Your task to perform on an android device: Open Reddit.com Image 0: 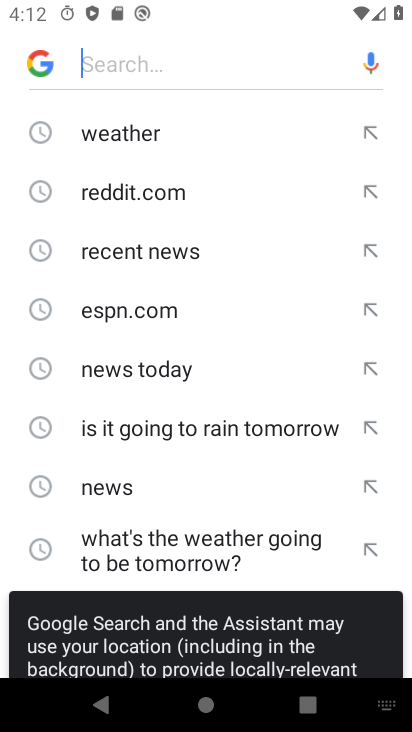
Step 0: press home button
Your task to perform on an android device: Open Reddit.com Image 1: 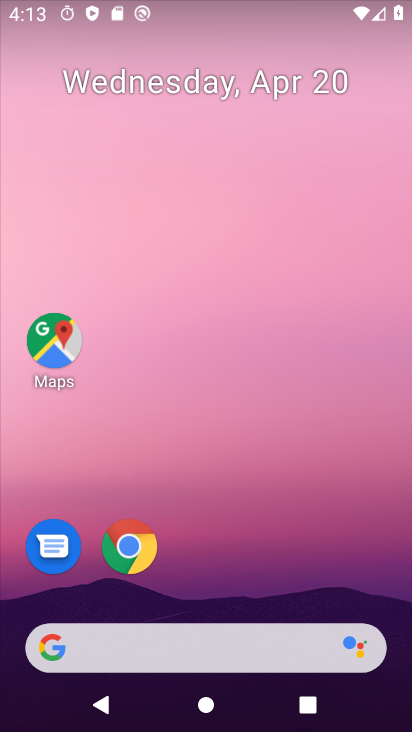
Step 1: click (112, 645)
Your task to perform on an android device: Open Reddit.com Image 2: 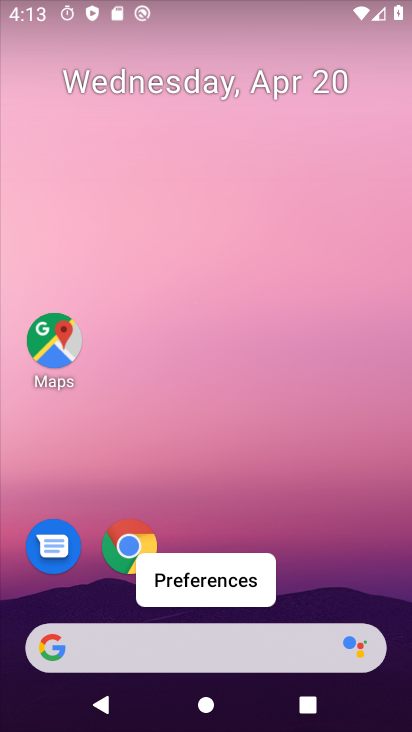
Step 2: click (112, 645)
Your task to perform on an android device: Open Reddit.com Image 3: 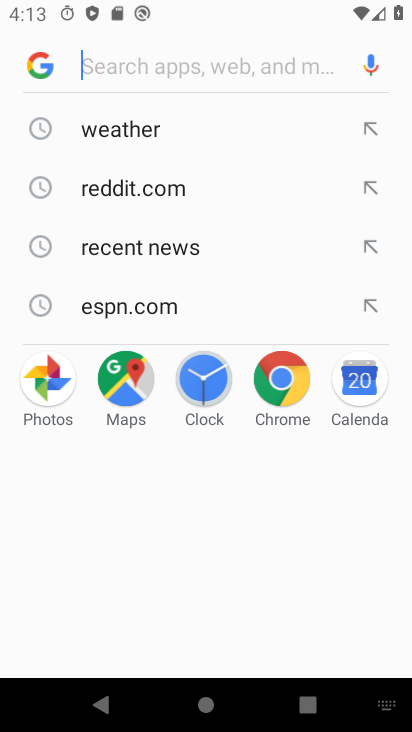
Step 3: click (158, 176)
Your task to perform on an android device: Open Reddit.com Image 4: 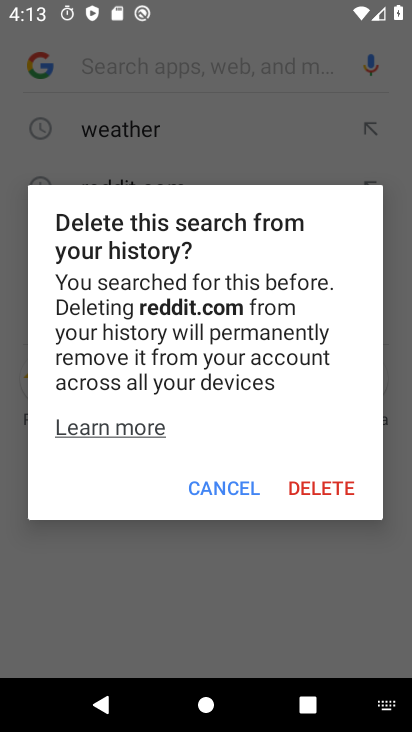
Step 4: click (229, 488)
Your task to perform on an android device: Open Reddit.com Image 5: 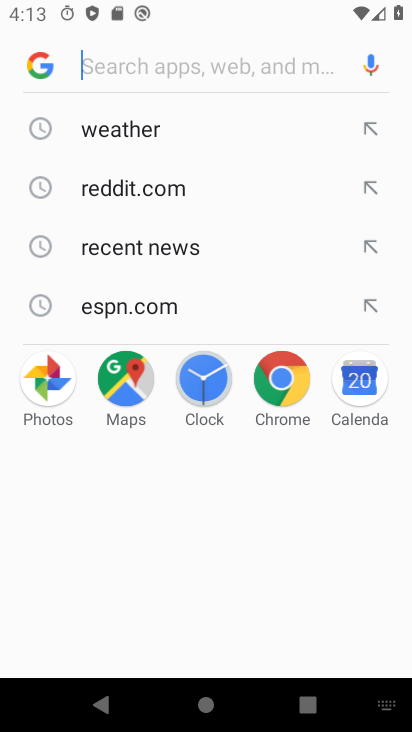
Step 5: click (167, 193)
Your task to perform on an android device: Open Reddit.com Image 6: 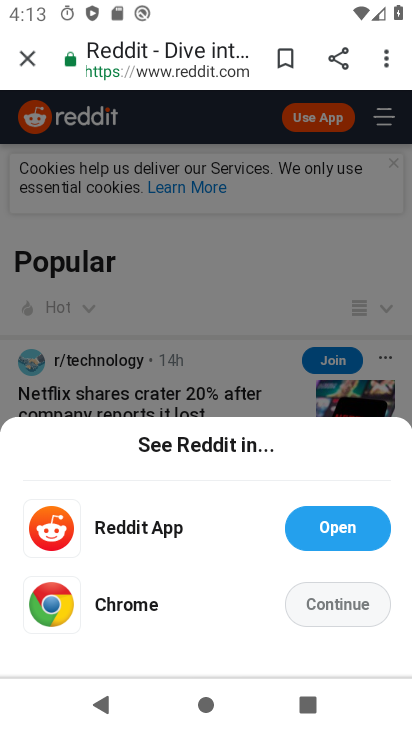
Step 6: task complete